Your task to perform on an android device: Open Yahoo.com Image 0: 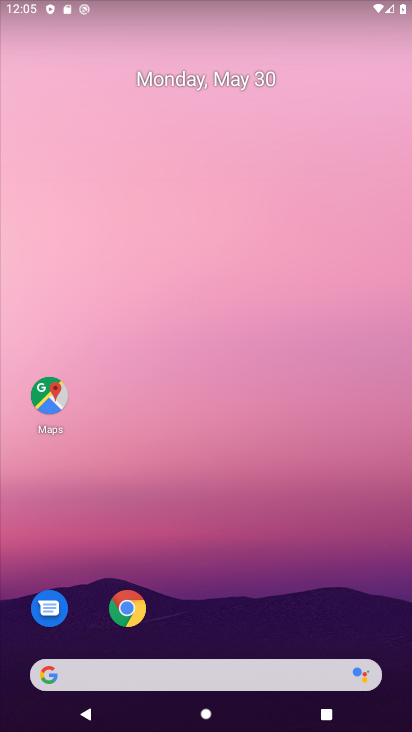
Step 0: drag from (265, 615) to (263, 77)
Your task to perform on an android device: Open Yahoo.com Image 1: 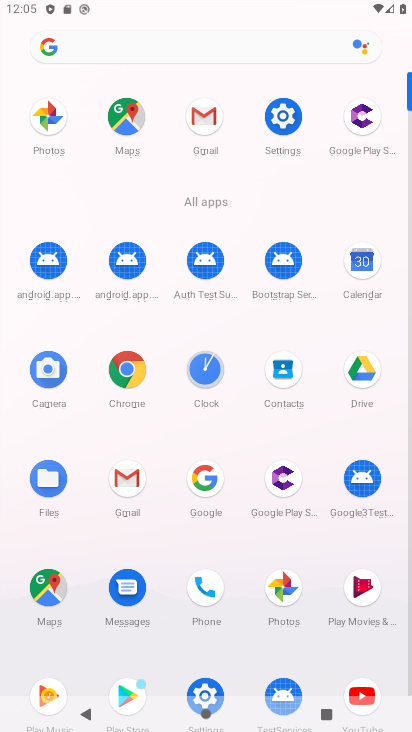
Step 1: click (131, 362)
Your task to perform on an android device: Open Yahoo.com Image 2: 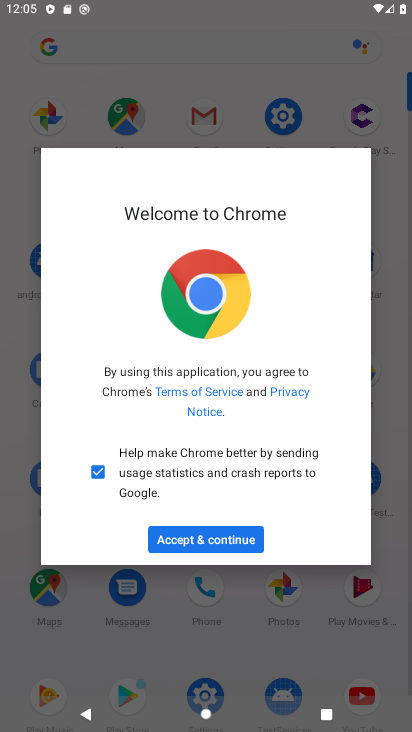
Step 2: click (246, 536)
Your task to perform on an android device: Open Yahoo.com Image 3: 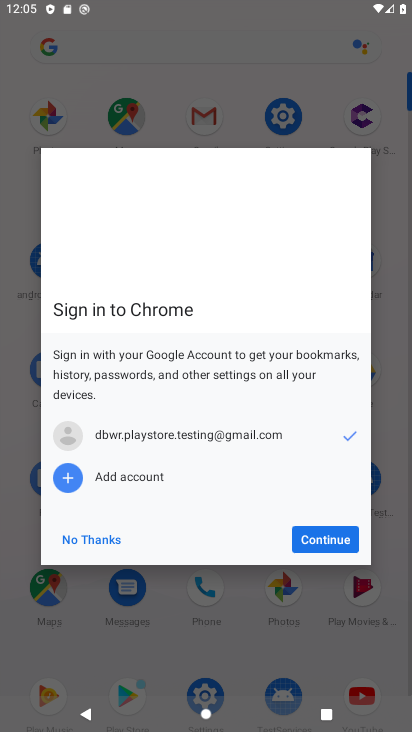
Step 3: click (310, 541)
Your task to perform on an android device: Open Yahoo.com Image 4: 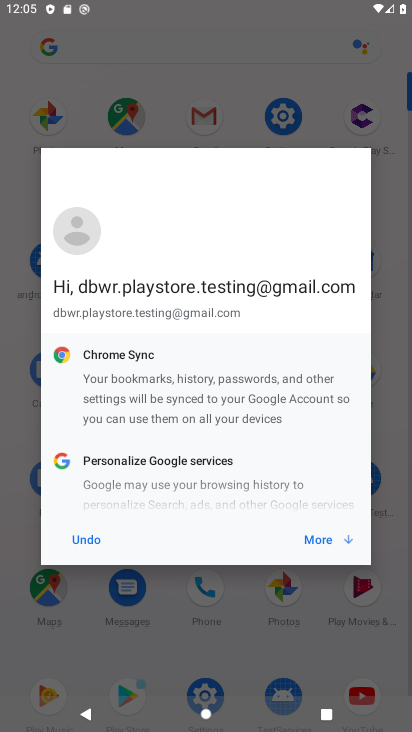
Step 4: click (310, 541)
Your task to perform on an android device: Open Yahoo.com Image 5: 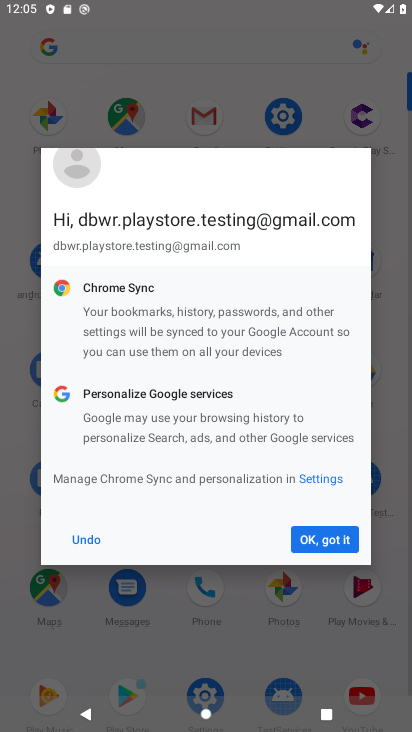
Step 5: click (310, 541)
Your task to perform on an android device: Open Yahoo.com Image 6: 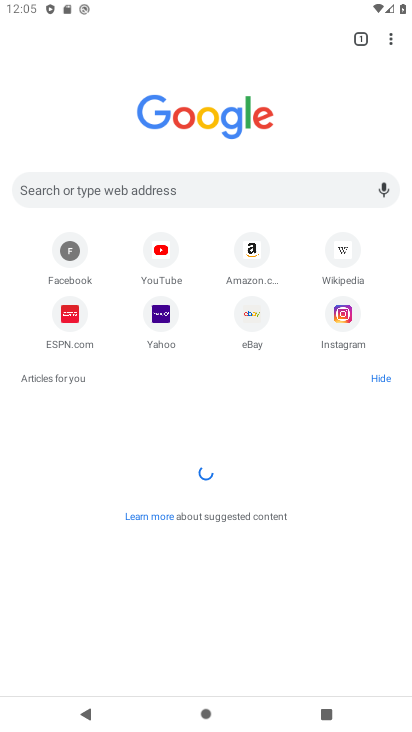
Step 6: click (167, 313)
Your task to perform on an android device: Open Yahoo.com Image 7: 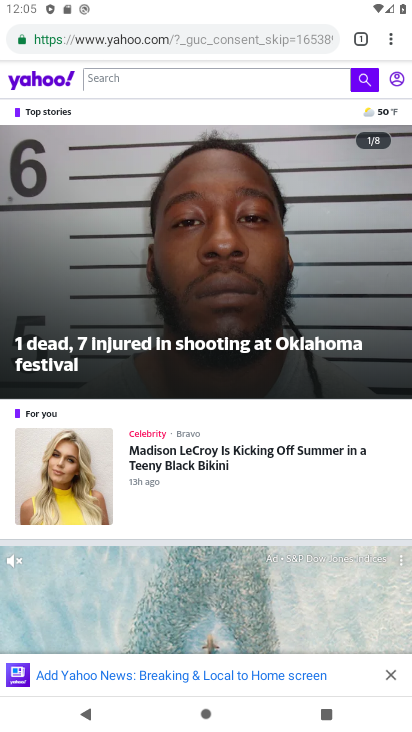
Step 7: task complete